Your task to perform on an android device: Open Android settings Image 0: 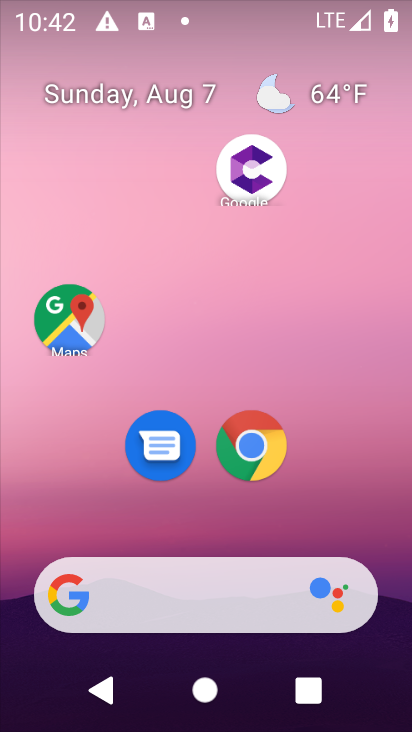
Step 0: press home button
Your task to perform on an android device: Open Android settings Image 1: 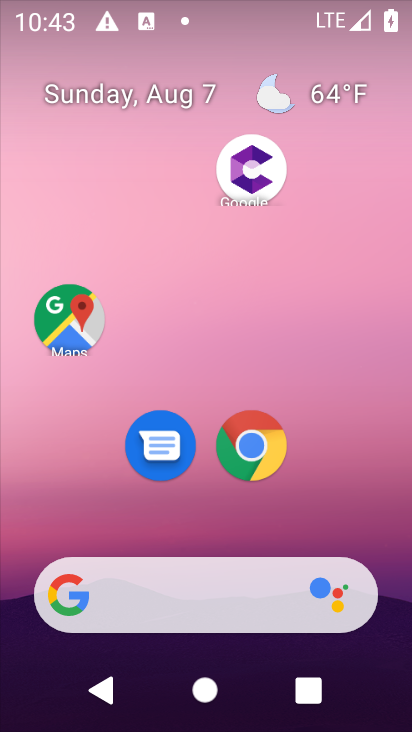
Step 1: drag from (201, 536) to (199, 80)
Your task to perform on an android device: Open Android settings Image 2: 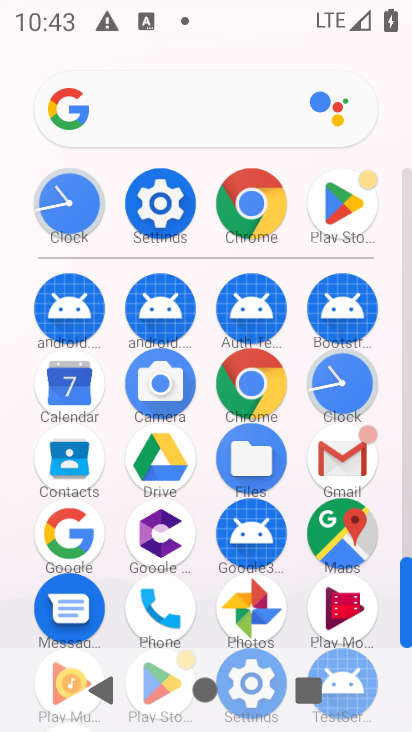
Step 2: click (158, 195)
Your task to perform on an android device: Open Android settings Image 3: 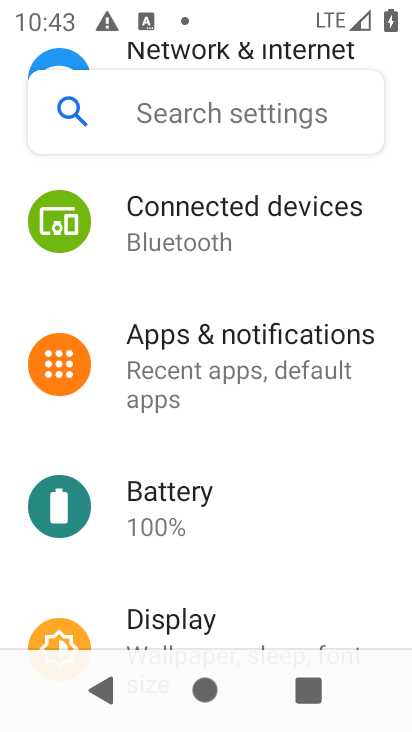
Step 3: drag from (231, 587) to (236, 249)
Your task to perform on an android device: Open Android settings Image 4: 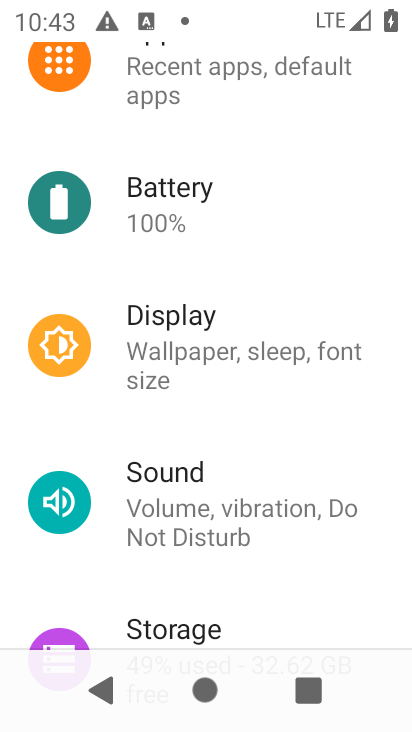
Step 4: drag from (233, 613) to (246, 152)
Your task to perform on an android device: Open Android settings Image 5: 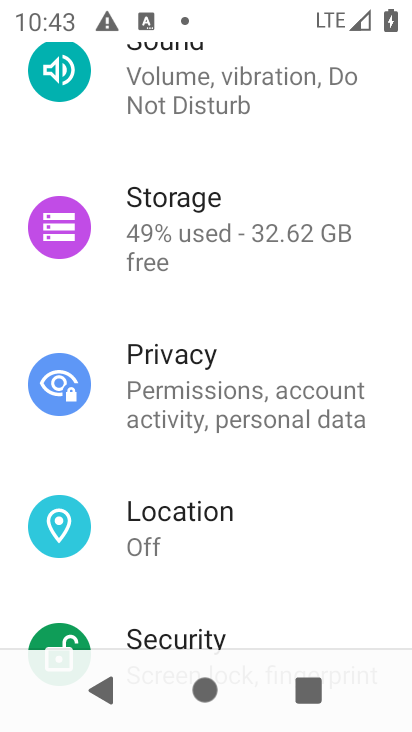
Step 5: drag from (252, 623) to (266, 136)
Your task to perform on an android device: Open Android settings Image 6: 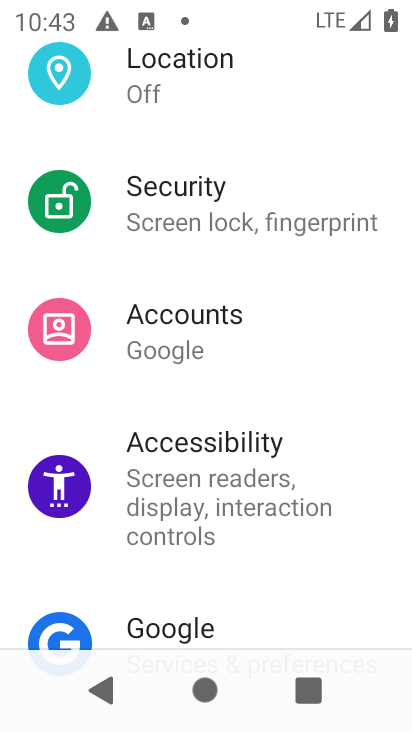
Step 6: drag from (254, 605) to (265, 112)
Your task to perform on an android device: Open Android settings Image 7: 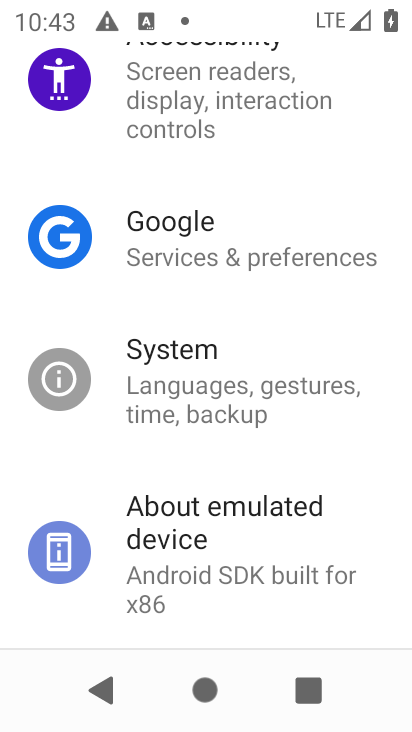
Step 7: click (240, 536)
Your task to perform on an android device: Open Android settings Image 8: 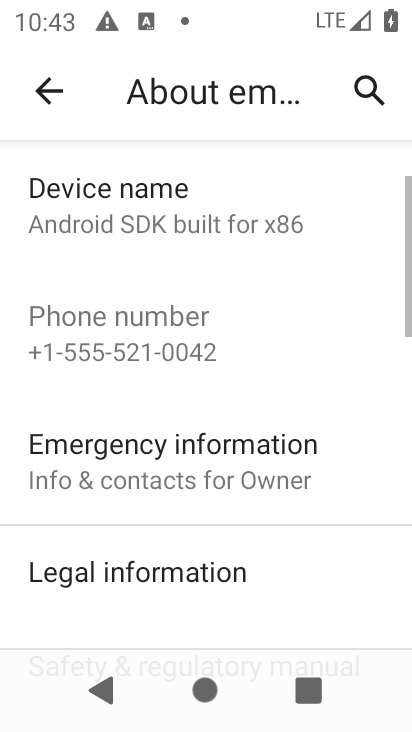
Step 8: drag from (295, 554) to (303, 219)
Your task to perform on an android device: Open Android settings Image 9: 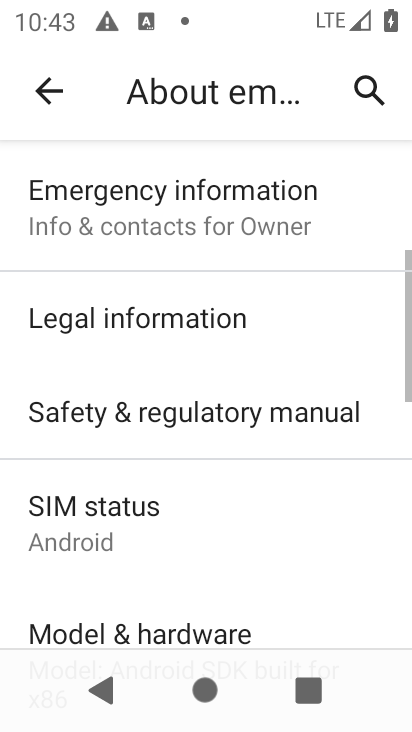
Step 9: drag from (258, 568) to (242, 183)
Your task to perform on an android device: Open Android settings Image 10: 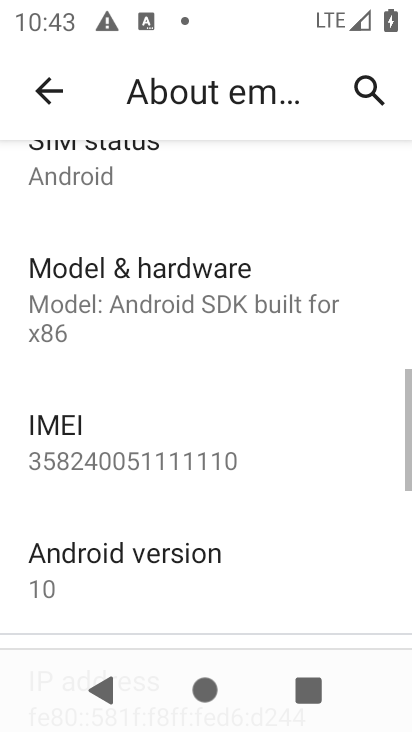
Step 10: click (249, 593)
Your task to perform on an android device: Open Android settings Image 11: 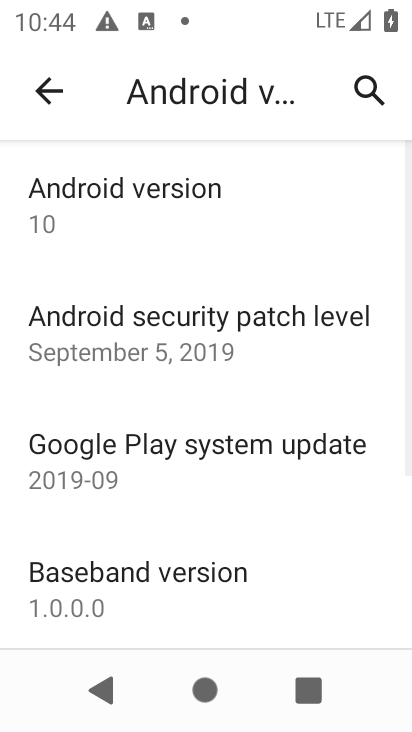
Step 11: task complete